Your task to perform on an android device: Open maps Image 0: 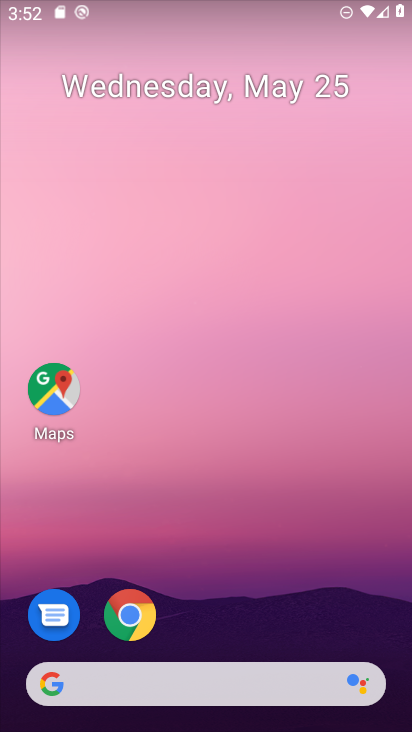
Step 0: click (47, 391)
Your task to perform on an android device: Open maps Image 1: 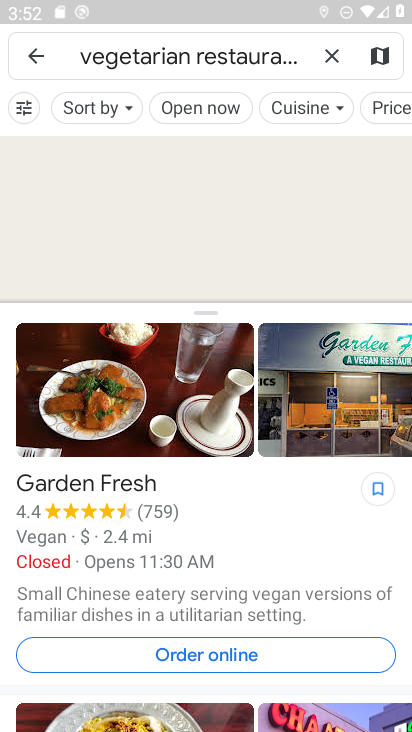
Step 1: click (322, 46)
Your task to perform on an android device: Open maps Image 2: 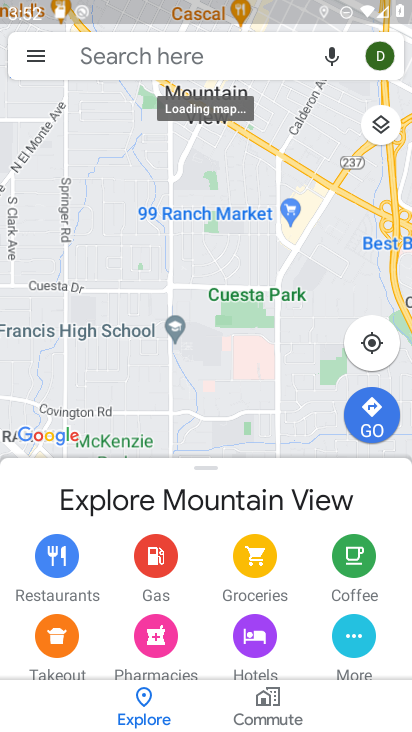
Step 2: task complete